Your task to perform on an android device: check out phone information Image 0: 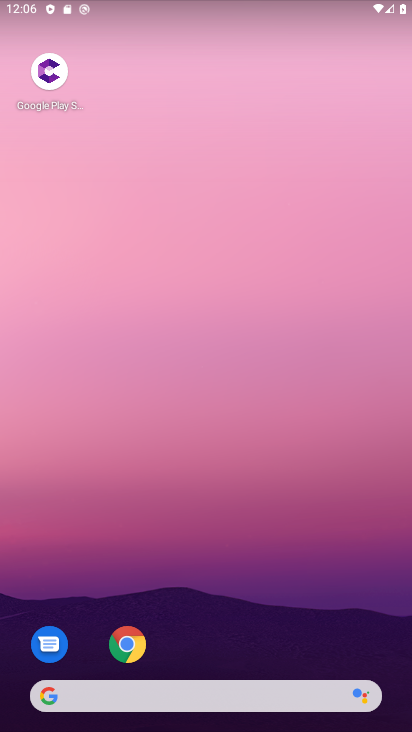
Step 0: drag from (248, 655) to (259, 89)
Your task to perform on an android device: check out phone information Image 1: 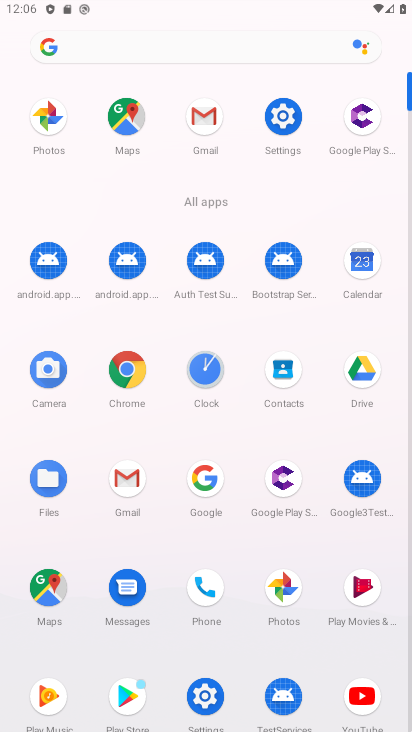
Step 1: click (280, 111)
Your task to perform on an android device: check out phone information Image 2: 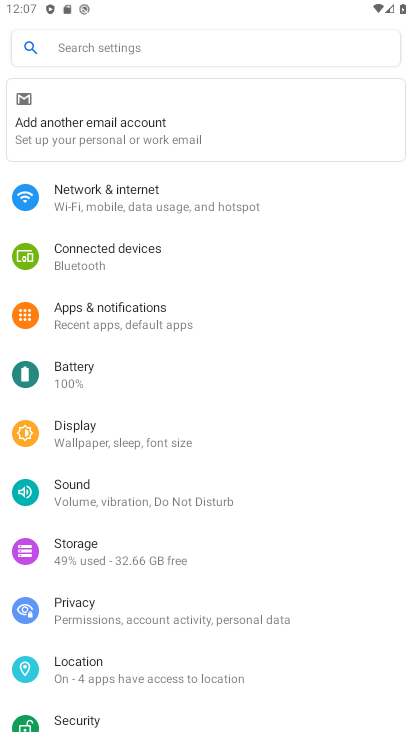
Step 2: drag from (245, 573) to (248, 170)
Your task to perform on an android device: check out phone information Image 3: 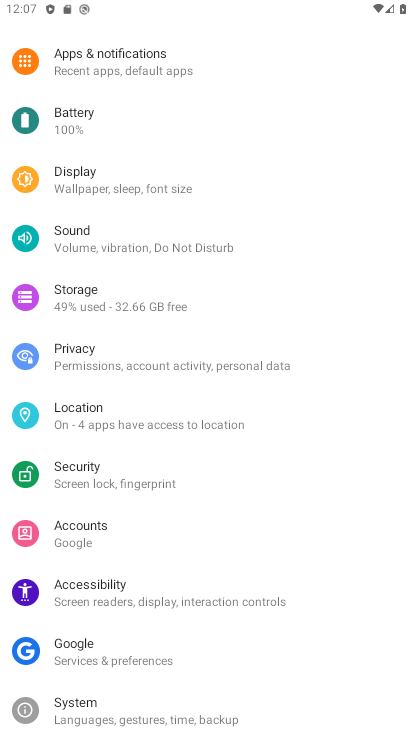
Step 3: drag from (211, 678) to (296, 215)
Your task to perform on an android device: check out phone information Image 4: 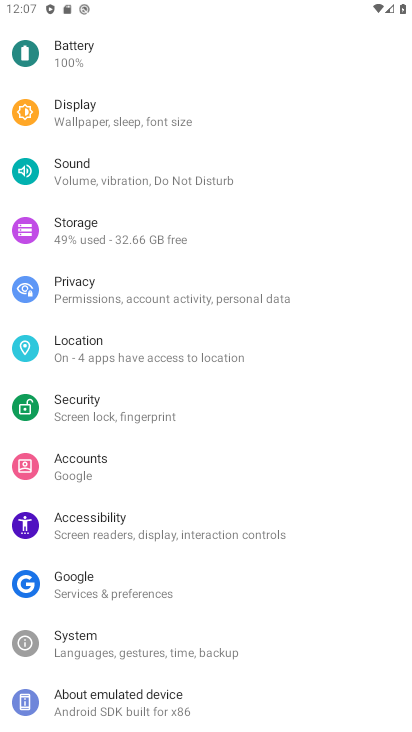
Step 4: click (143, 695)
Your task to perform on an android device: check out phone information Image 5: 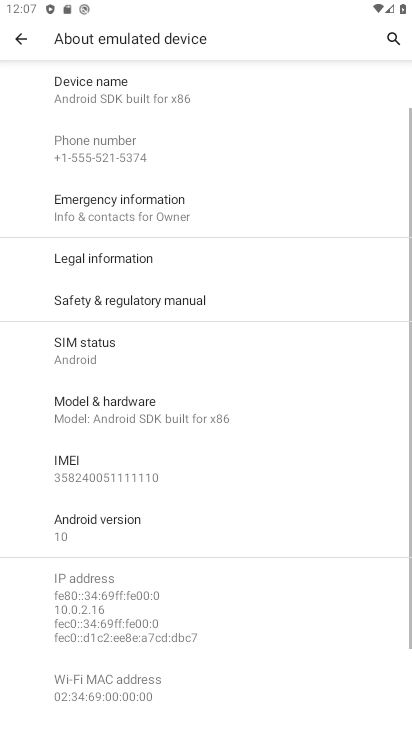
Step 5: click (171, 417)
Your task to perform on an android device: check out phone information Image 6: 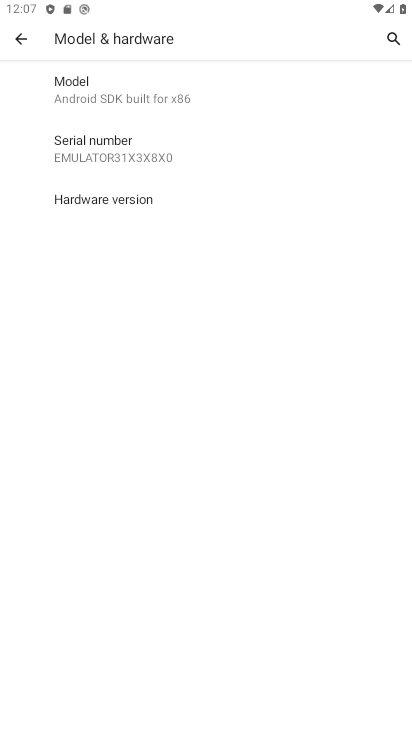
Step 6: task complete